Your task to perform on an android device: Open my contact list Image 0: 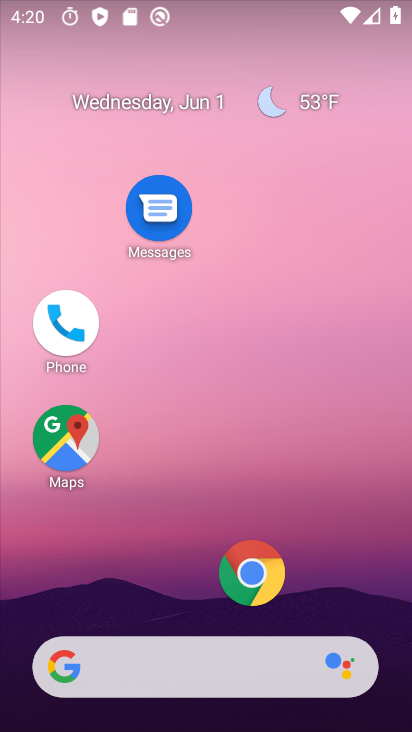
Step 0: drag from (147, 587) to (149, 68)
Your task to perform on an android device: Open my contact list Image 1: 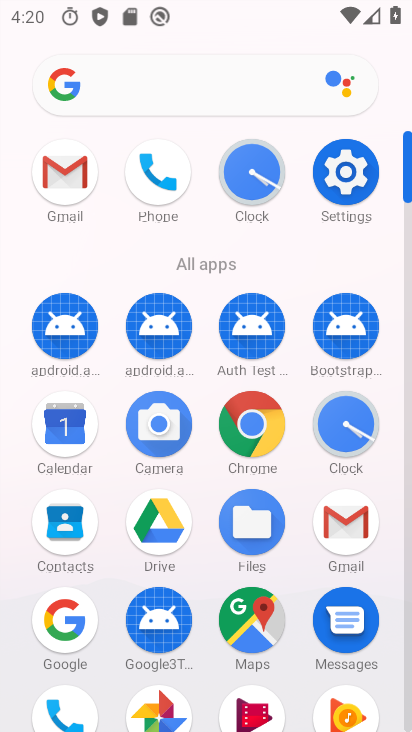
Step 1: click (73, 530)
Your task to perform on an android device: Open my contact list Image 2: 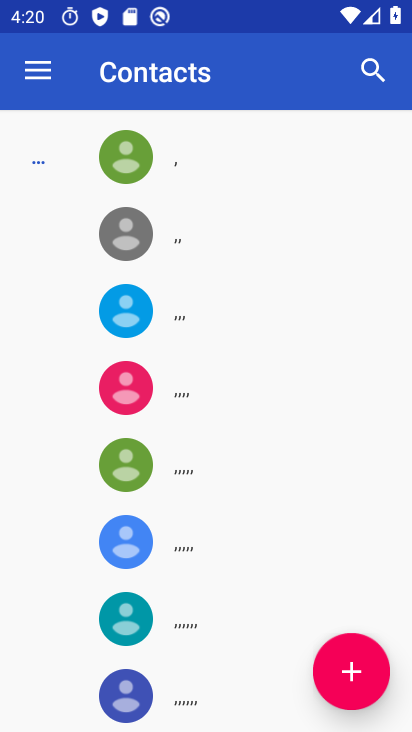
Step 2: task complete